Your task to perform on an android device: Go to Google maps Image 0: 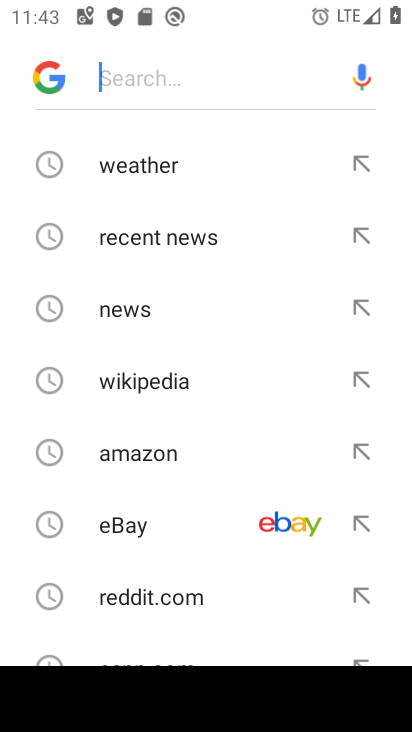
Step 0: press home button
Your task to perform on an android device: Go to Google maps Image 1: 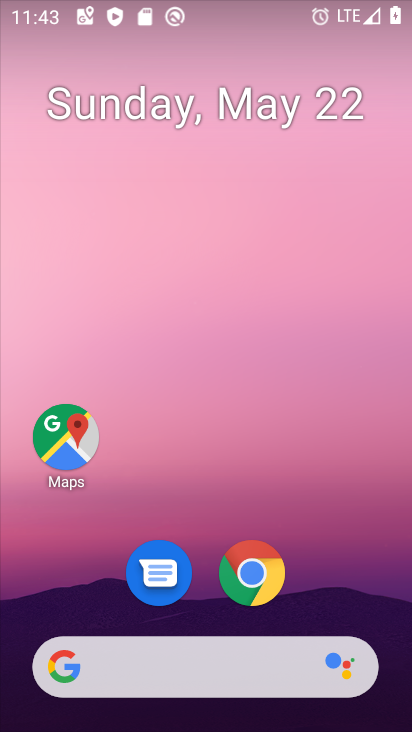
Step 1: click (53, 437)
Your task to perform on an android device: Go to Google maps Image 2: 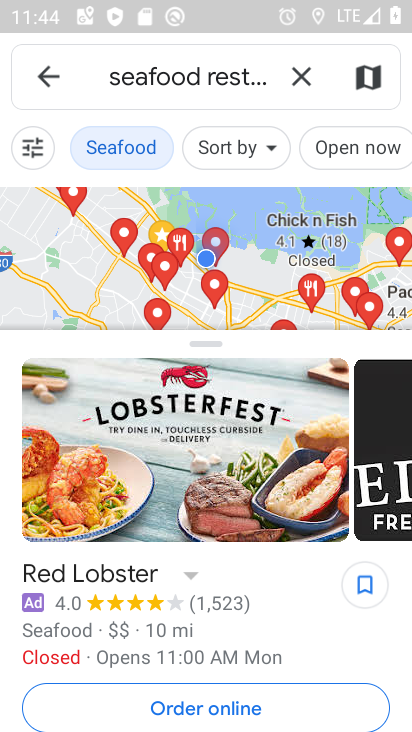
Step 2: click (54, 78)
Your task to perform on an android device: Go to Google maps Image 3: 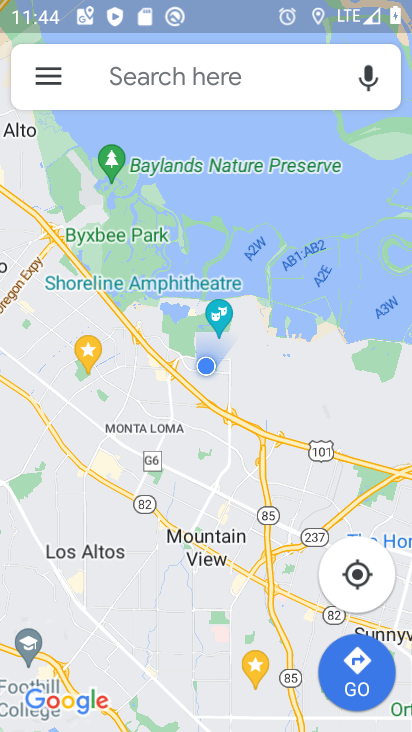
Step 3: task complete